Your task to perform on an android device: turn on priority inbox in the gmail app Image 0: 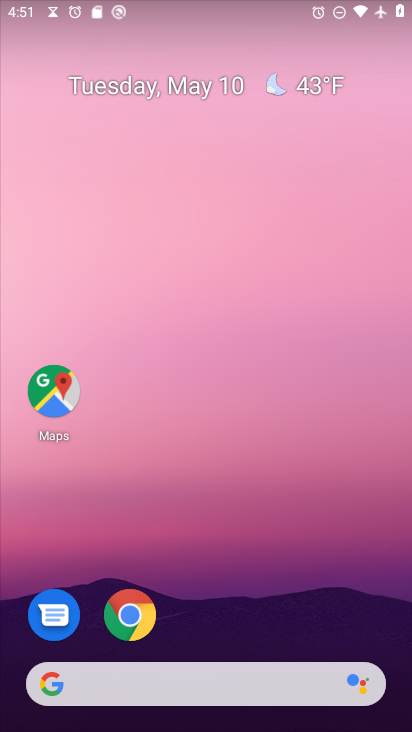
Step 0: drag from (242, 604) to (221, 41)
Your task to perform on an android device: turn on priority inbox in the gmail app Image 1: 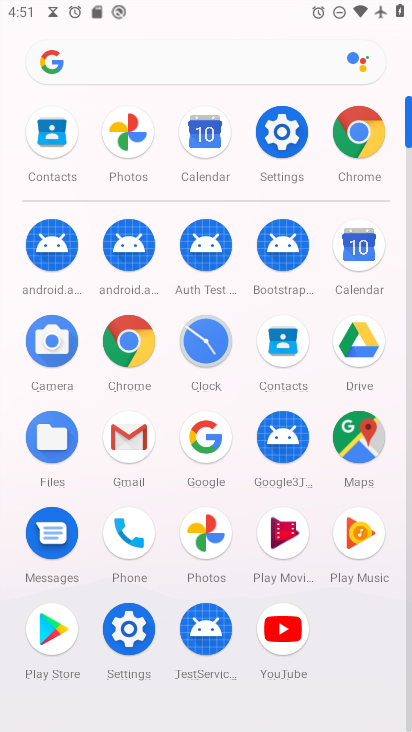
Step 1: drag from (6, 561) to (15, 208)
Your task to perform on an android device: turn on priority inbox in the gmail app Image 2: 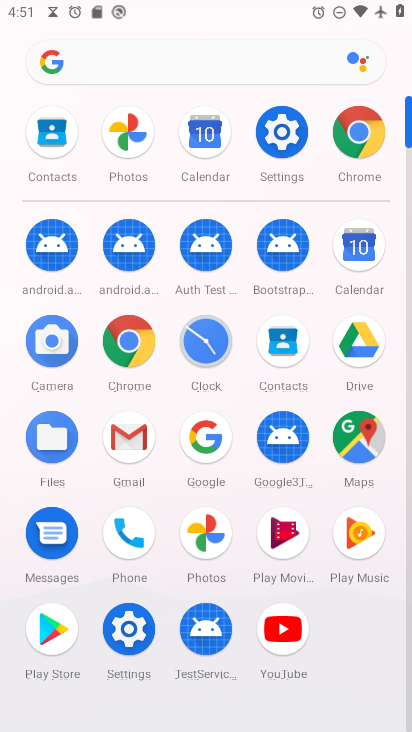
Step 2: click (127, 429)
Your task to perform on an android device: turn on priority inbox in the gmail app Image 3: 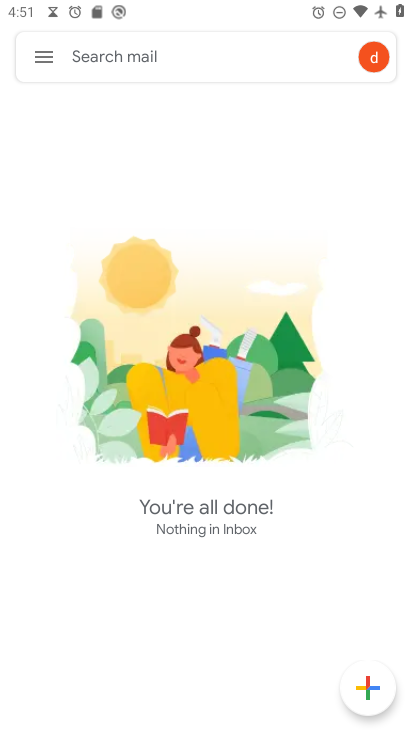
Step 3: click (33, 56)
Your task to perform on an android device: turn on priority inbox in the gmail app Image 4: 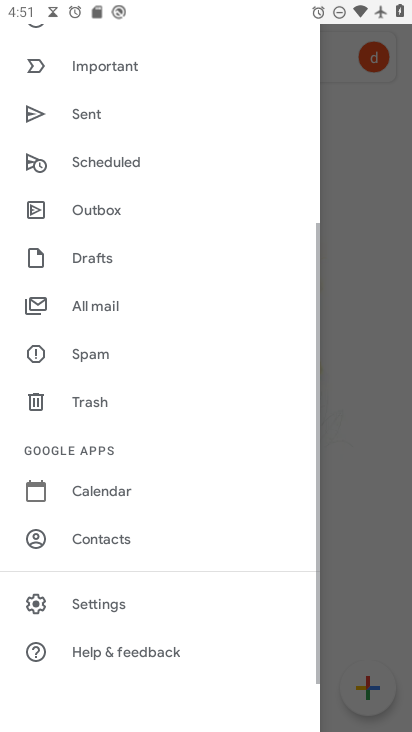
Step 4: click (95, 593)
Your task to perform on an android device: turn on priority inbox in the gmail app Image 5: 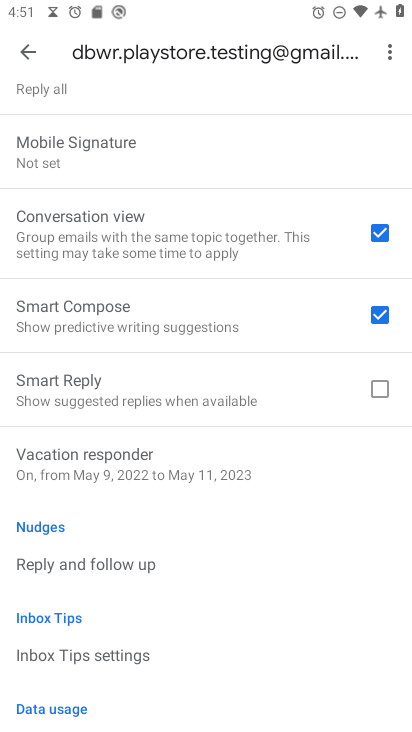
Step 5: drag from (219, 557) to (272, 109)
Your task to perform on an android device: turn on priority inbox in the gmail app Image 6: 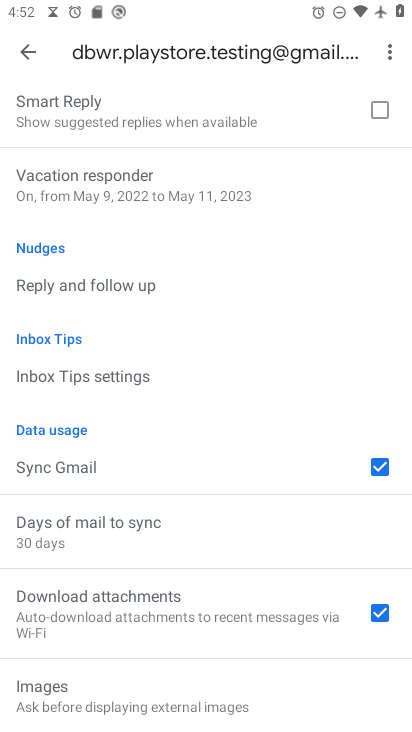
Step 6: drag from (130, 607) to (182, 110)
Your task to perform on an android device: turn on priority inbox in the gmail app Image 7: 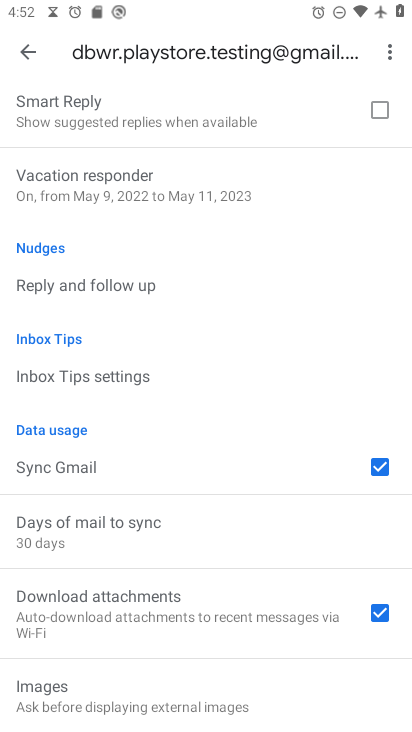
Step 7: drag from (189, 234) to (172, 626)
Your task to perform on an android device: turn on priority inbox in the gmail app Image 8: 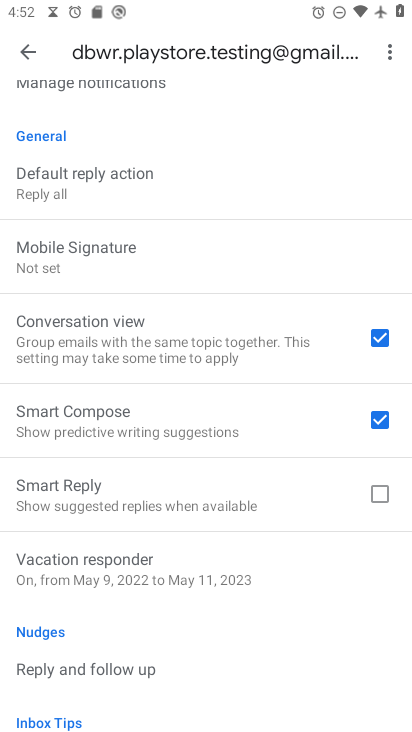
Step 8: drag from (204, 182) to (200, 645)
Your task to perform on an android device: turn on priority inbox in the gmail app Image 9: 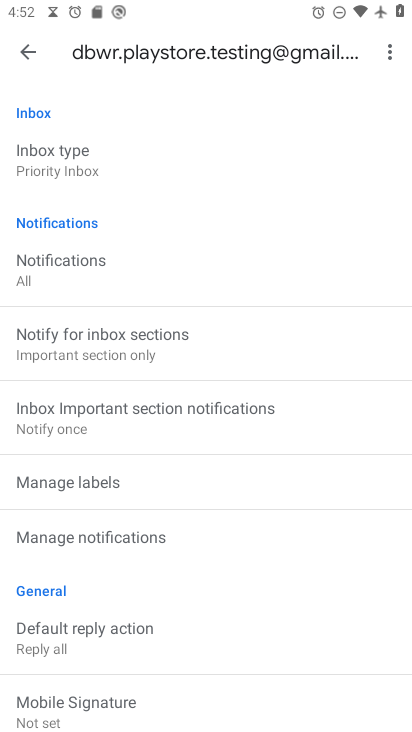
Step 9: click (107, 161)
Your task to perform on an android device: turn on priority inbox in the gmail app Image 10: 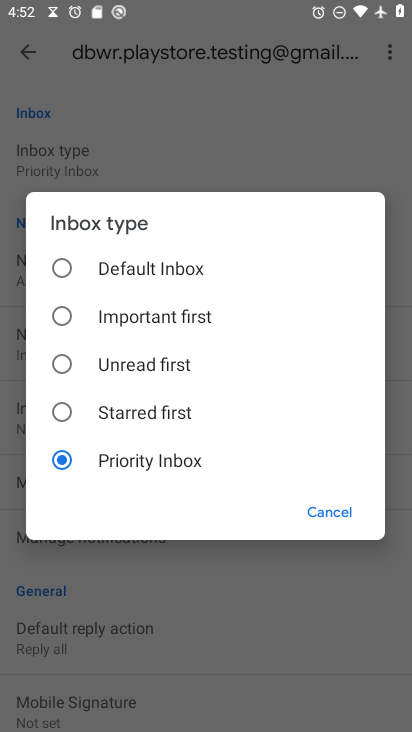
Step 10: click (131, 451)
Your task to perform on an android device: turn on priority inbox in the gmail app Image 11: 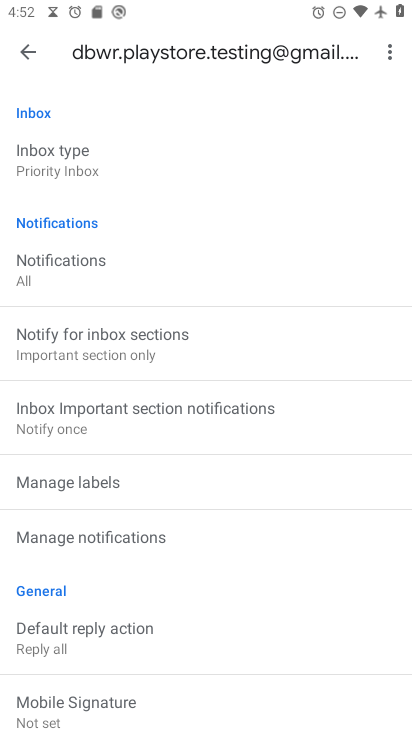
Step 11: task complete